Your task to perform on an android device: Open notification settings Image 0: 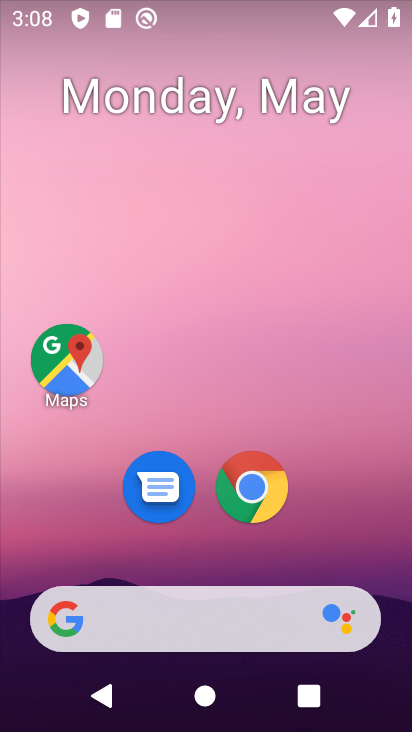
Step 0: drag from (185, 592) to (269, 86)
Your task to perform on an android device: Open notification settings Image 1: 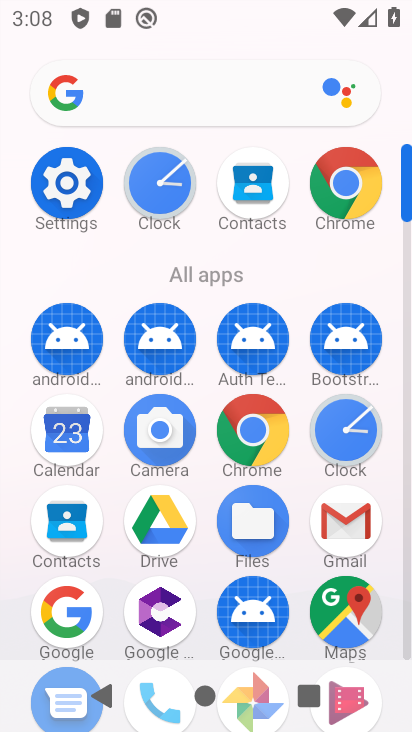
Step 1: click (79, 179)
Your task to perform on an android device: Open notification settings Image 2: 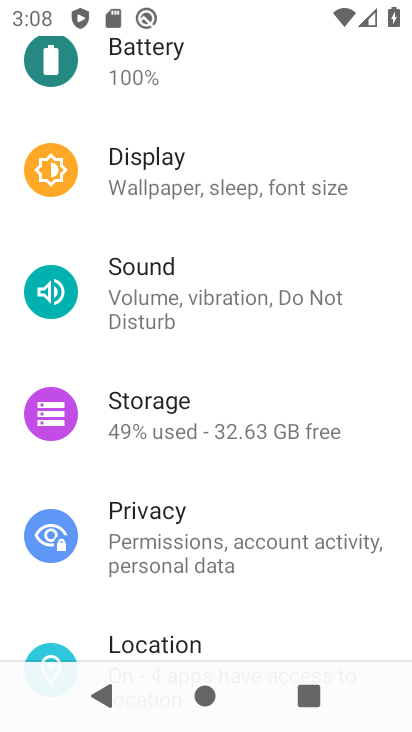
Step 2: drag from (259, 110) to (204, 549)
Your task to perform on an android device: Open notification settings Image 3: 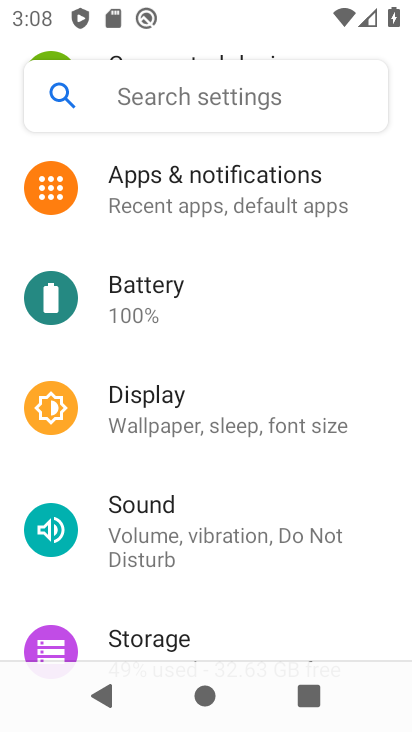
Step 3: click (203, 201)
Your task to perform on an android device: Open notification settings Image 4: 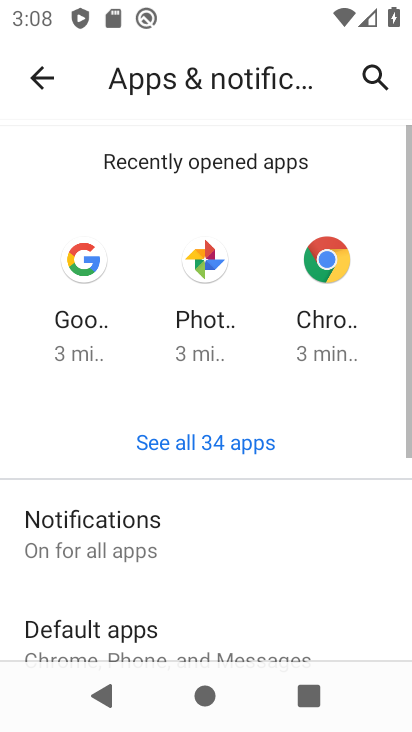
Step 4: task complete